Your task to perform on an android device: What's the weather? Image 0: 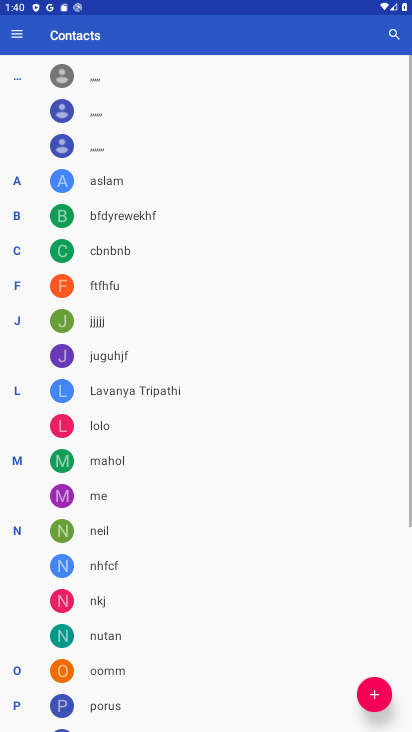
Step 0: drag from (235, 619) to (337, 0)
Your task to perform on an android device: What's the weather? Image 1: 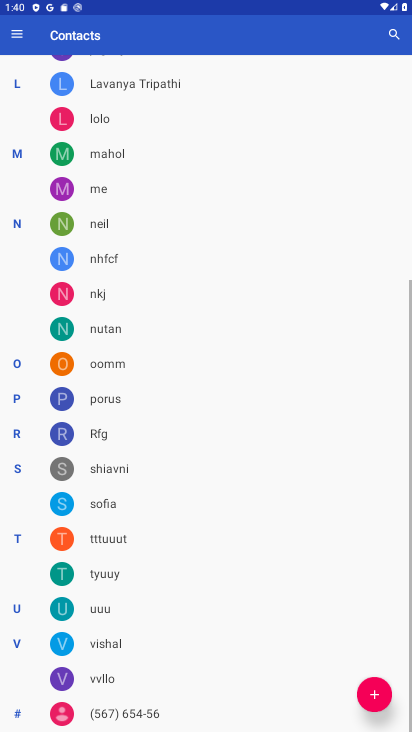
Step 1: press home button
Your task to perform on an android device: What's the weather? Image 2: 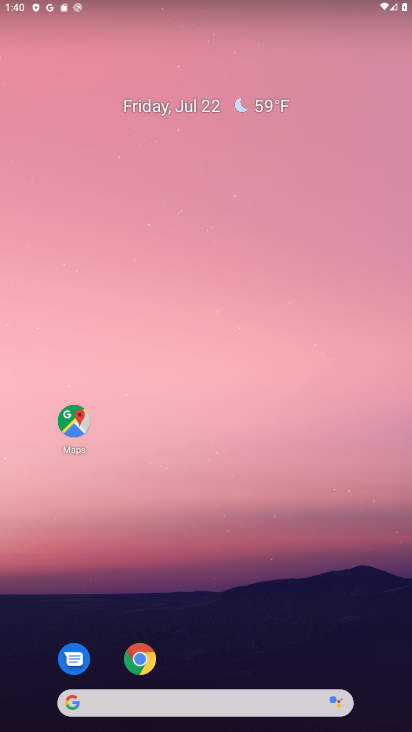
Step 2: drag from (332, 334) to (379, 115)
Your task to perform on an android device: What's the weather? Image 3: 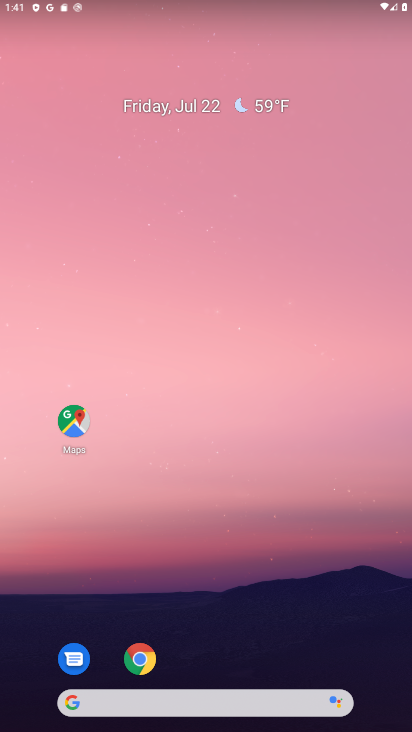
Step 3: drag from (216, 618) to (315, 37)
Your task to perform on an android device: What's the weather? Image 4: 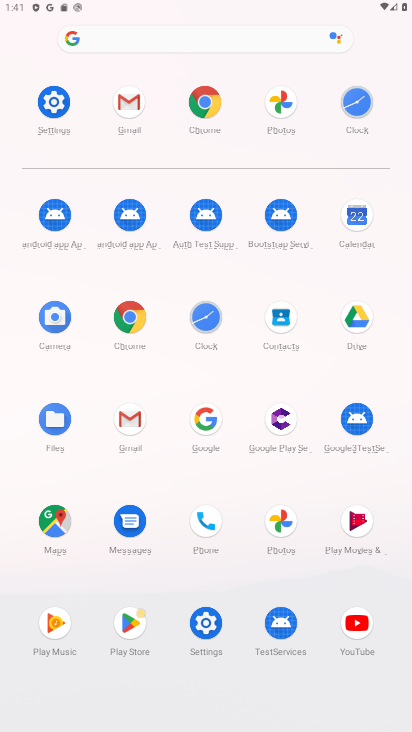
Step 4: click (213, 426)
Your task to perform on an android device: What's the weather? Image 5: 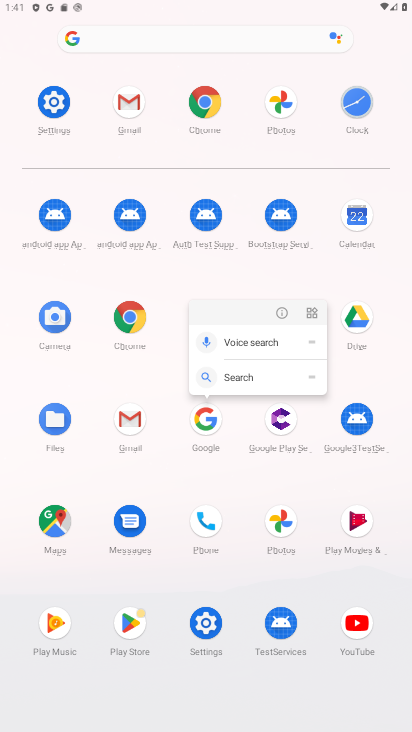
Step 5: click (190, 418)
Your task to perform on an android device: What's the weather? Image 6: 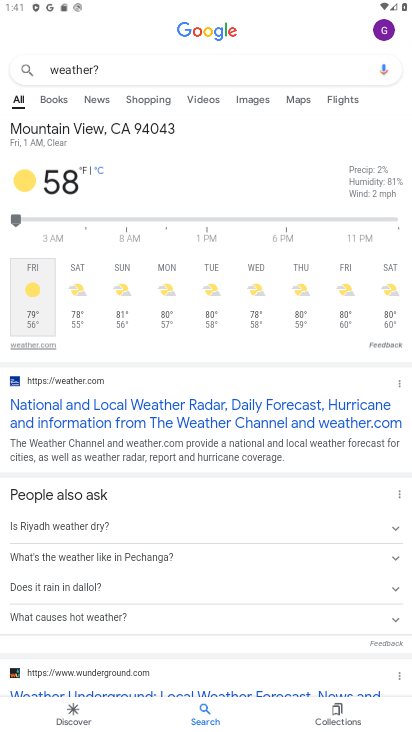
Step 6: task complete